Your task to perform on an android device: all mails in gmail Image 0: 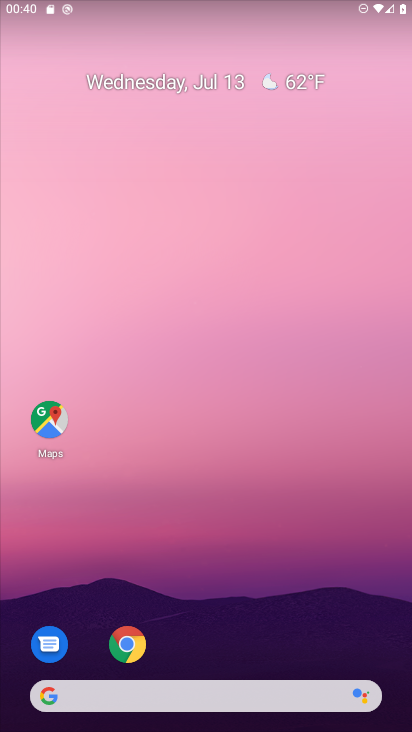
Step 0: drag from (219, 671) to (35, 54)
Your task to perform on an android device: all mails in gmail Image 1: 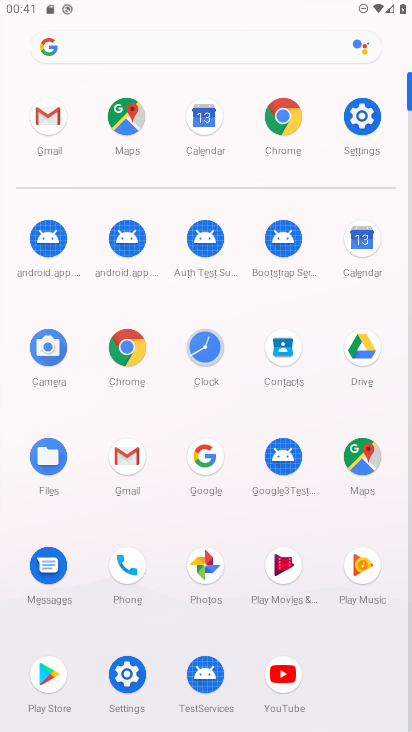
Step 1: click (135, 472)
Your task to perform on an android device: all mails in gmail Image 2: 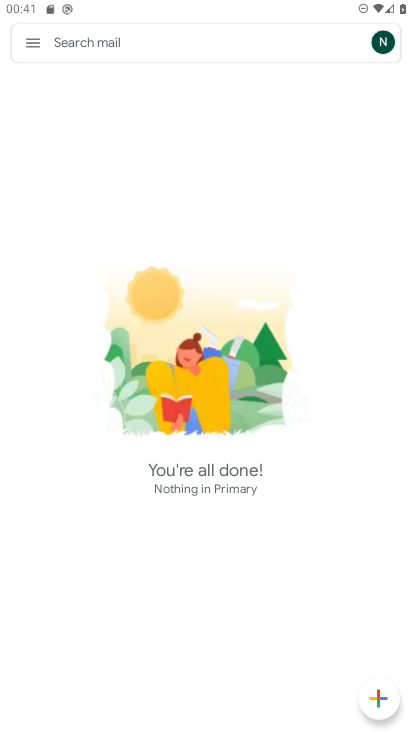
Step 2: click (30, 37)
Your task to perform on an android device: all mails in gmail Image 3: 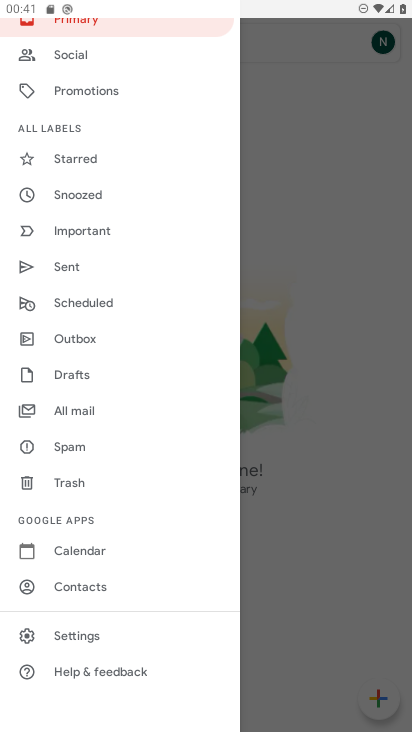
Step 3: click (52, 415)
Your task to perform on an android device: all mails in gmail Image 4: 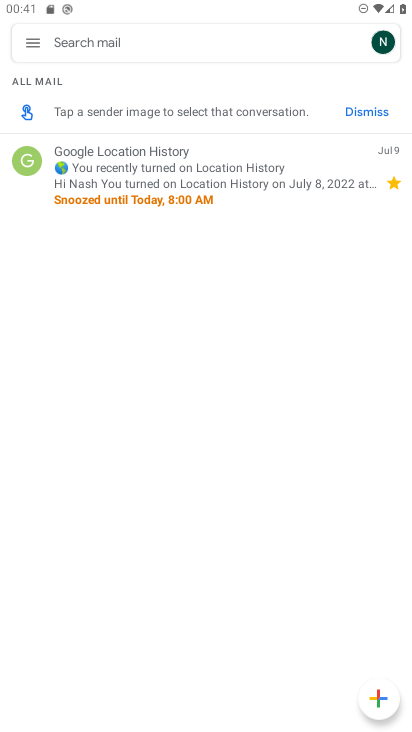
Step 4: task complete